Your task to perform on an android device: Open the stopwatch Image 0: 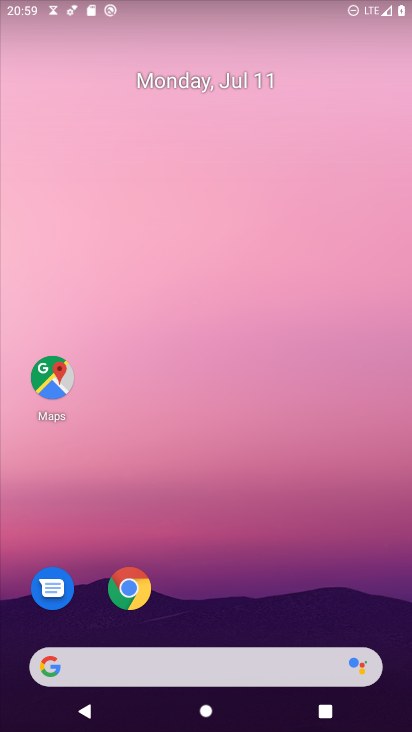
Step 0: press home button
Your task to perform on an android device: Open the stopwatch Image 1: 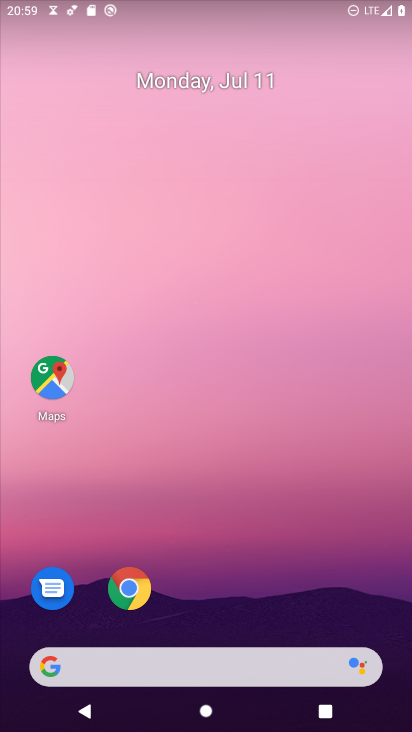
Step 1: drag from (226, 629) to (231, 93)
Your task to perform on an android device: Open the stopwatch Image 2: 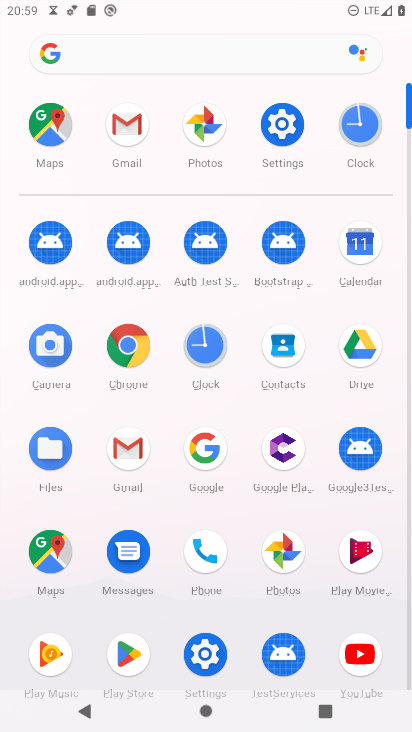
Step 2: click (361, 126)
Your task to perform on an android device: Open the stopwatch Image 3: 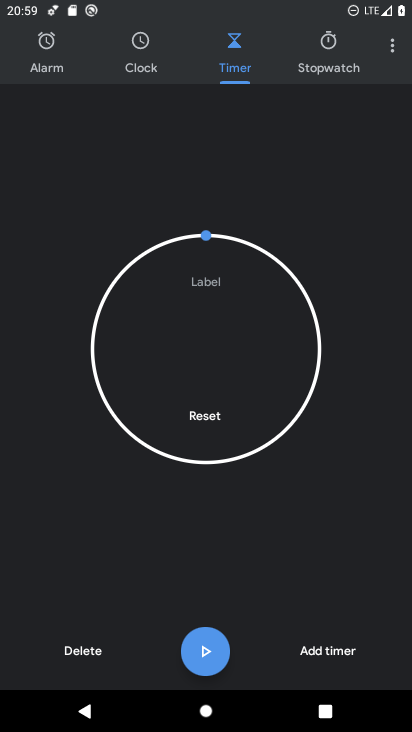
Step 3: click (323, 58)
Your task to perform on an android device: Open the stopwatch Image 4: 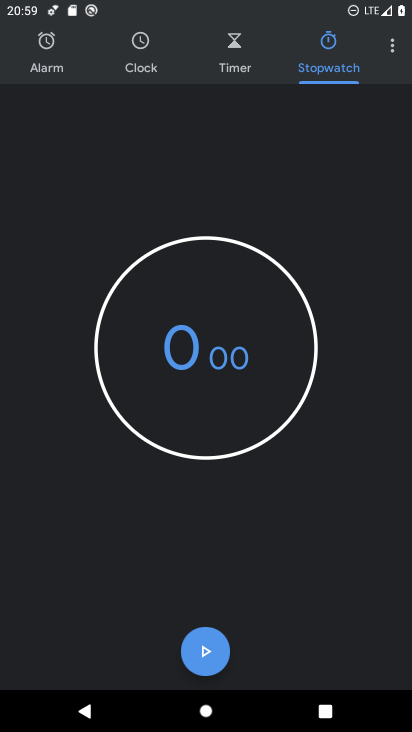
Step 4: task complete